Your task to perform on an android device: make emails show in primary in the gmail app Image 0: 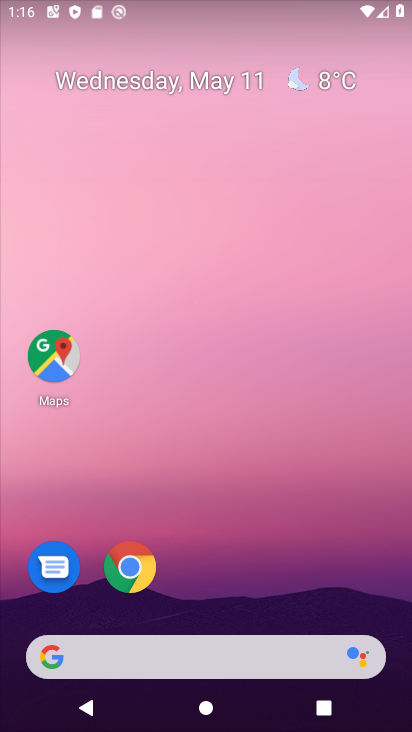
Step 0: drag from (303, 577) to (249, 287)
Your task to perform on an android device: make emails show in primary in the gmail app Image 1: 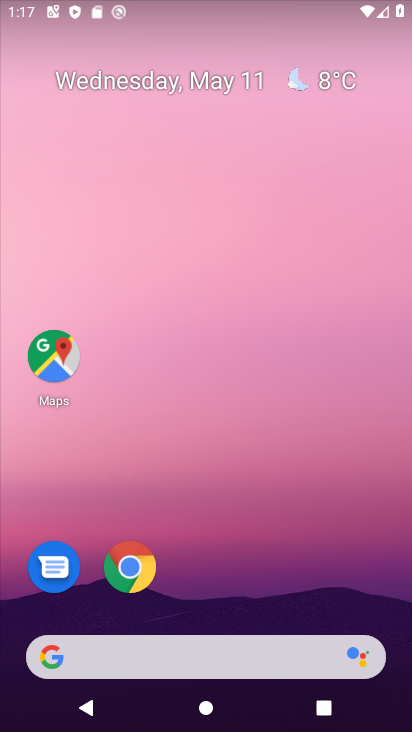
Step 1: drag from (315, 553) to (215, 95)
Your task to perform on an android device: make emails show in primary in the gmail app Image 2: 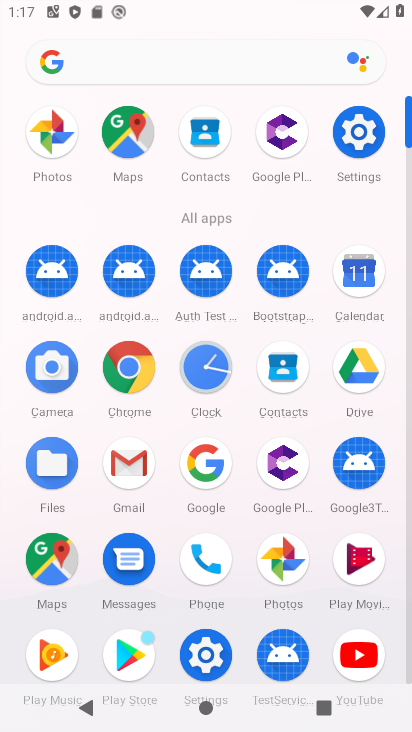
Step 2: click (125, 463)
Your task to perform on an android device: make emails show in primary in the gmail app Image 3: 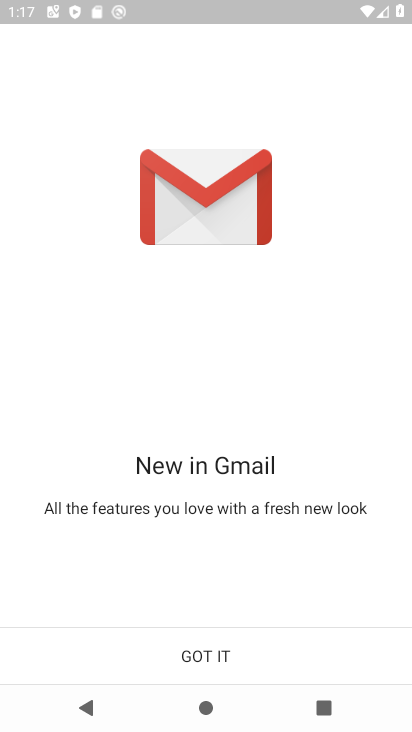
Step 3: click (252, 656)
Your task to perform on an android device: make emails show in primary in the gmail app Image 4: 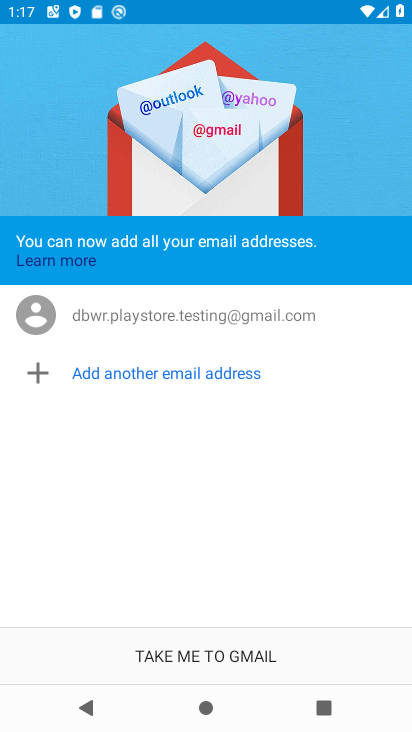
Step 4: click (218, 650)
Your task to perform on an android device: make emails show in primary in the gmail app Image 5: 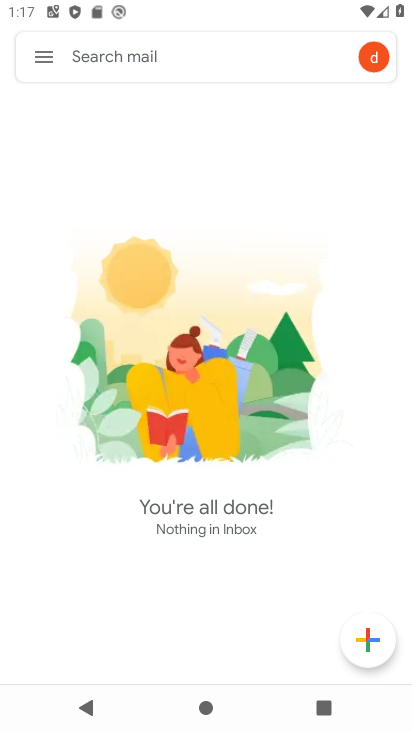
Step 5: click (52, 69)
Your task to perform on an android device: make emails show in primary in the gmail app Image 6: 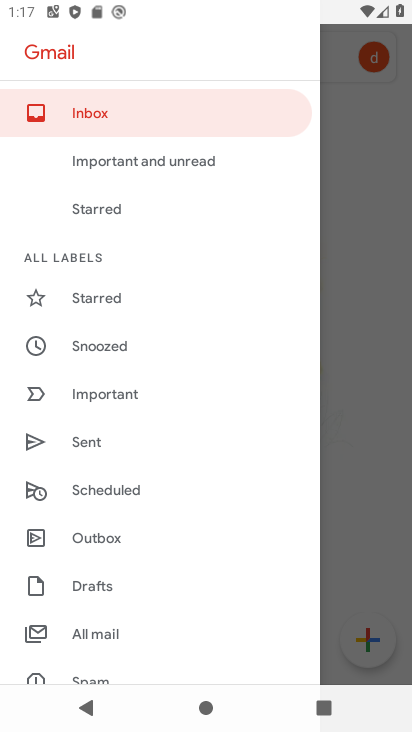
Step 6: drag from (220, 528) to (157, 365)
Your task to perform on an android device: make emails show in primary in the gmail app Image 7: 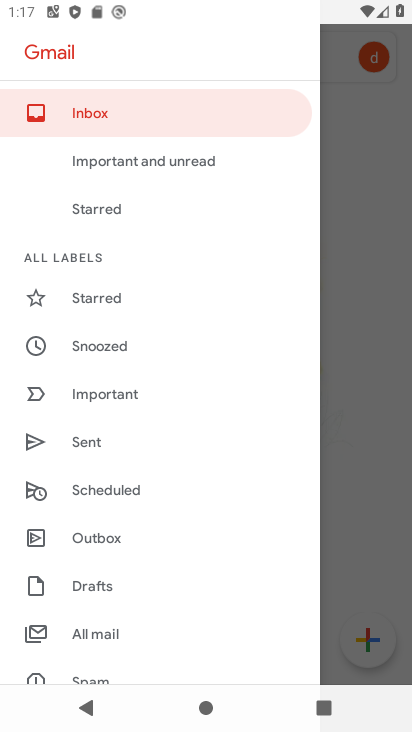
Step 7: drag from (204, 549) to (138, 175)
Your task to perform on an android device: make emails show in primary in the gmail app Image 8: 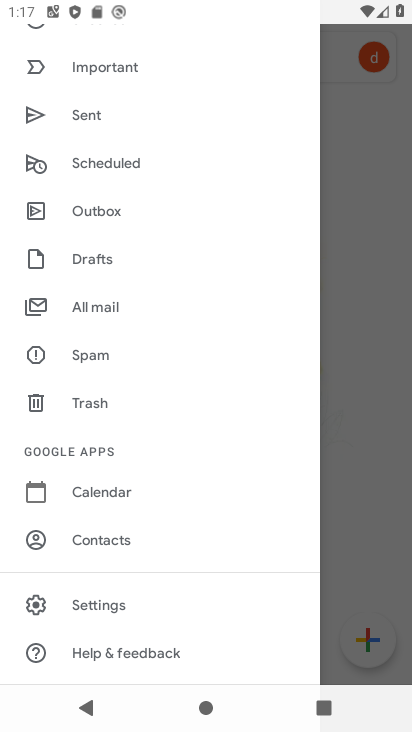
Step 8: click (123, 601)
Your task to perform on an android device: make emails show in primary in the gmail app Image 9: 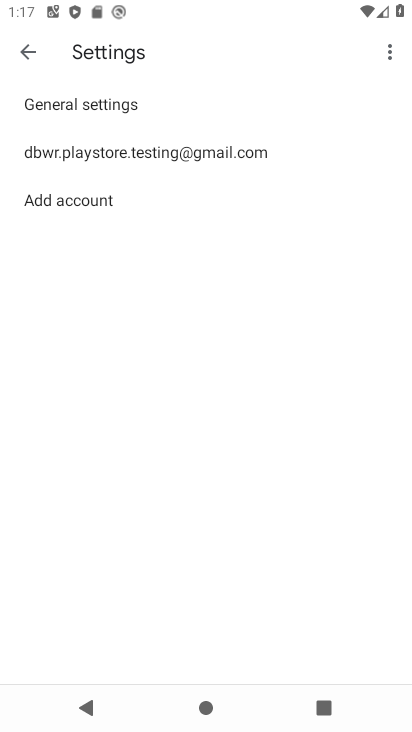
Step 9: click (74, 146)
Your task to perform on an android device: make emails show in primary in the gmail app Image 10: 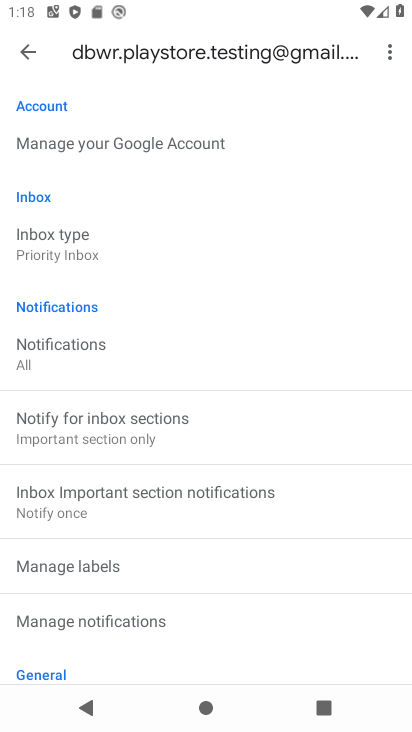
Step 10: click (131, 243)
Your task to perform on an android device: make emails show in primary in the gmail app Image 11: 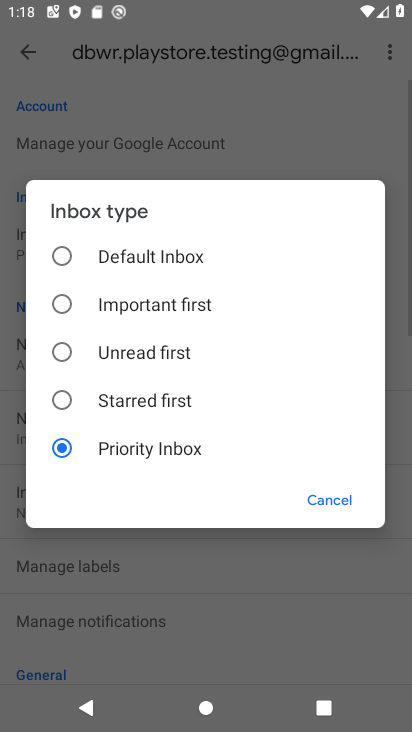
Step 11: click (117, 263)
Your task to perform on an android device: make emails show in primary in the gmail app Image 12: 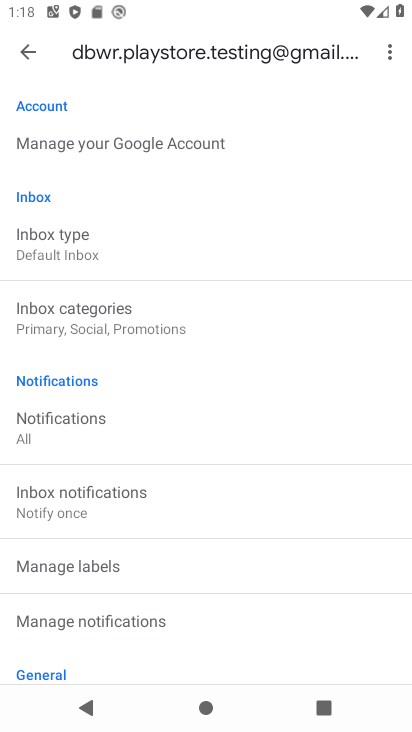
Step 12: click (140, 320)
Your task to perform on an android device: make emails show in primary in the gmail app Image 13: 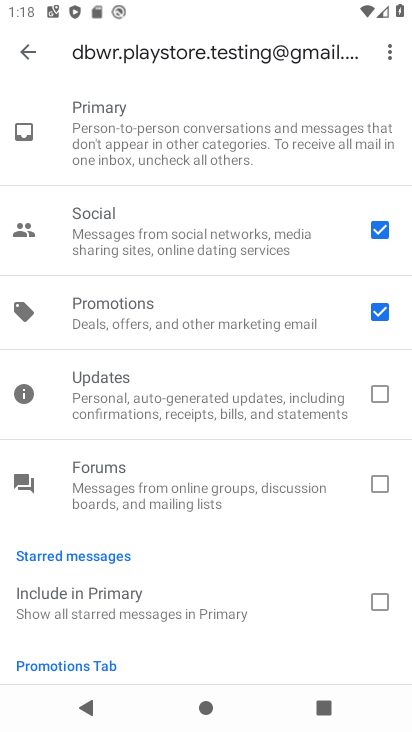
Step 13: click (384, 313)
Your task to perform on an android device: make emails show in primary in the gmail app Image 14: 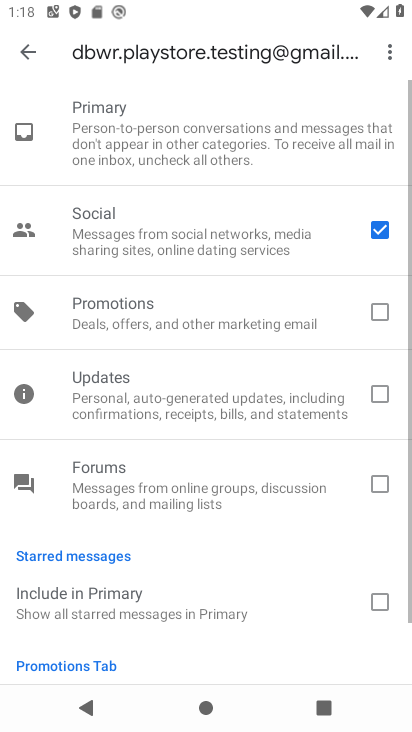
Step 14: click (379, 220)
Your task to perform on an android device: make emails show in primary in the gmail app Image 15: 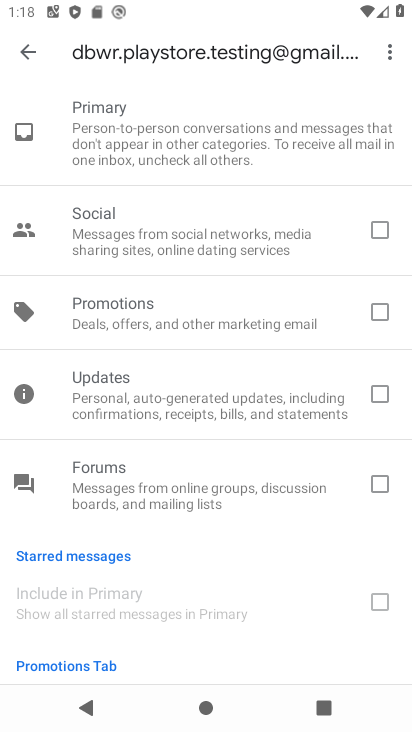
Step 15: task complete